Your task to perform on an android device: Open the web browser Image 0: 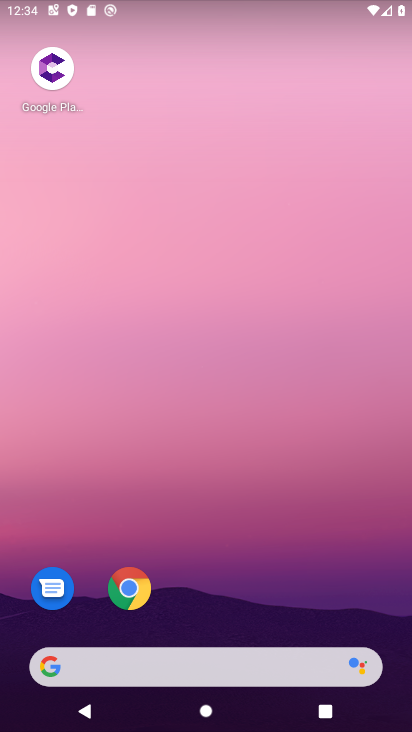
Step 0: drag from (137, 651) to (226, 198)
Your task to perform on an android device: Open the web browser Image 1: 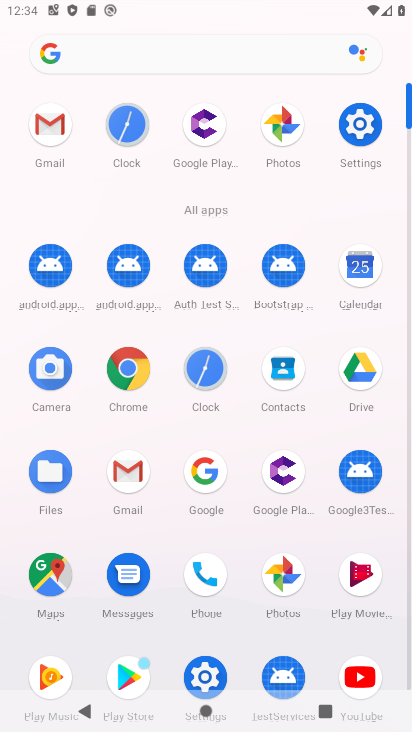
Step 1: click (206, 480)
Your task to perform on an android device: Open the web browser Image 2: 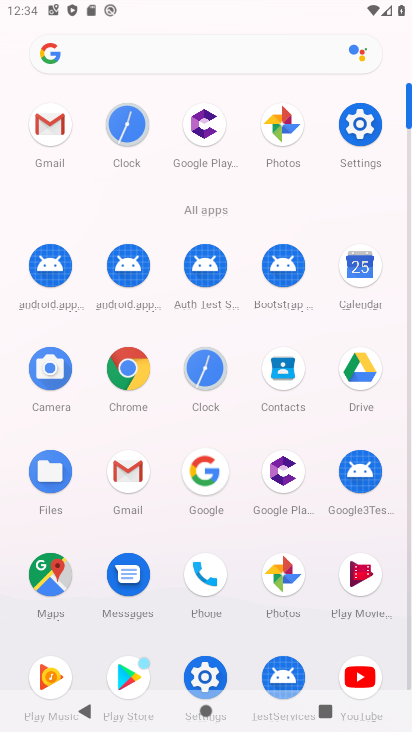
Step 2: click (212, 471)
Your task to perform on an android device: Open the web browser Image 3: 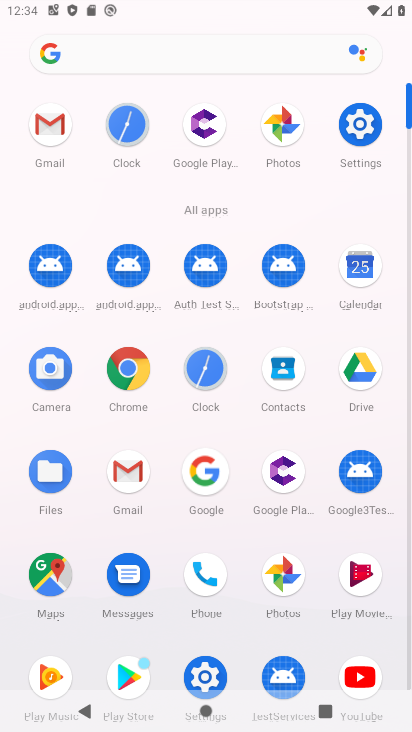
Step 3: click (194, 466)
Your task to perform on an android device: Open the web browser Image 4: 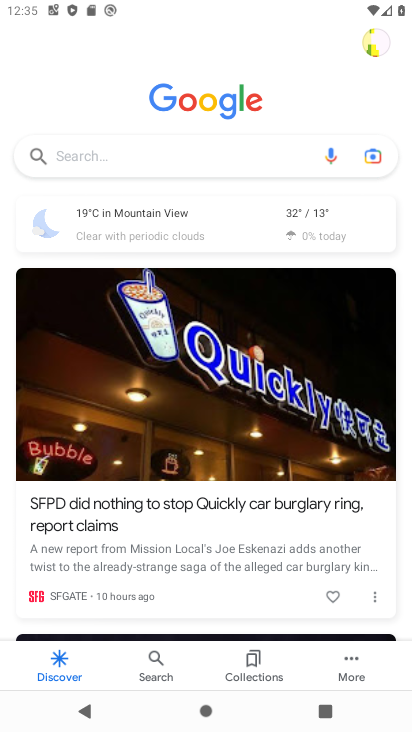
Step 4: task complete